Your task to perform on an android device: Do I have any events today? Image 0: 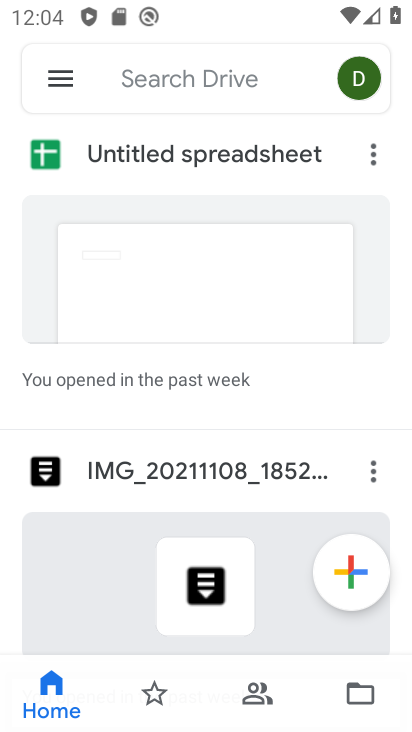
Step 0: task complete